Your task to perform on an android device: remove spam from my inbox in the gmail app Image 0: 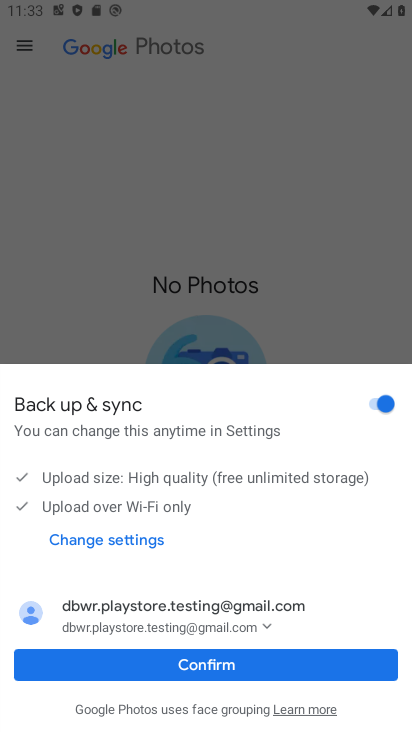
Step 0: press home button
Your task to perform on an android device: remove spam from my inbox in the gmail app Image 1: 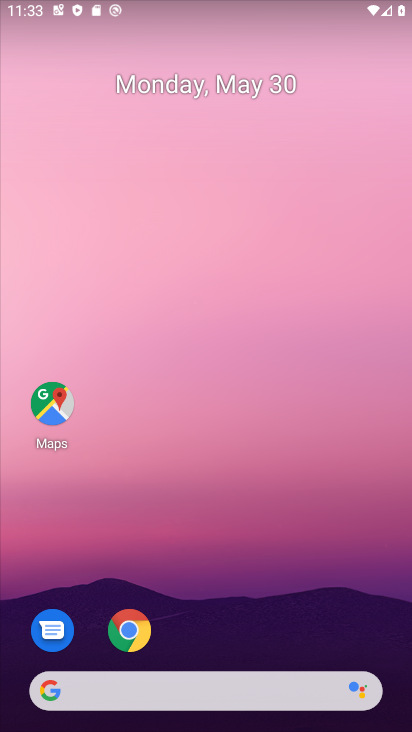
Step 1: drag from (218, 631) to (221, 131)
Your task to perform on an android device: remove spam from my inbox in the gmail app Image 2: 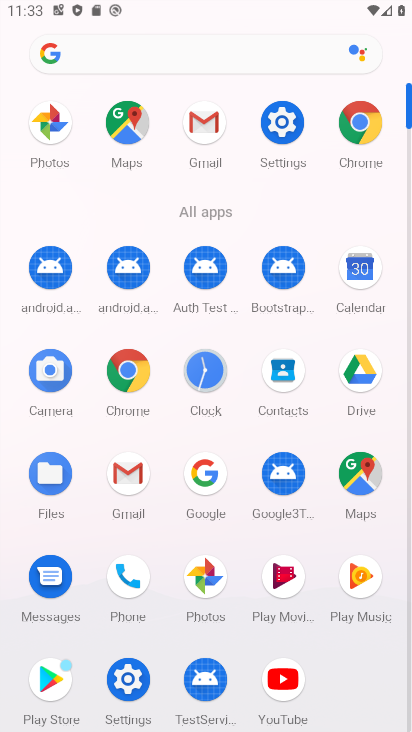
Step 2: click (140, 469)
Your task to perform on an android device: remove spam from my inbox in the gmail app Image 3: 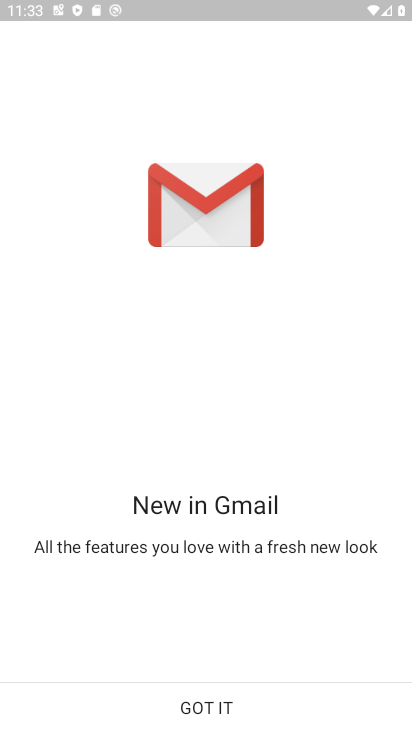
Step 3: click (196, 708)
Your task to perform on an android device: remove spam from my inbox in the gmail app Image 4: 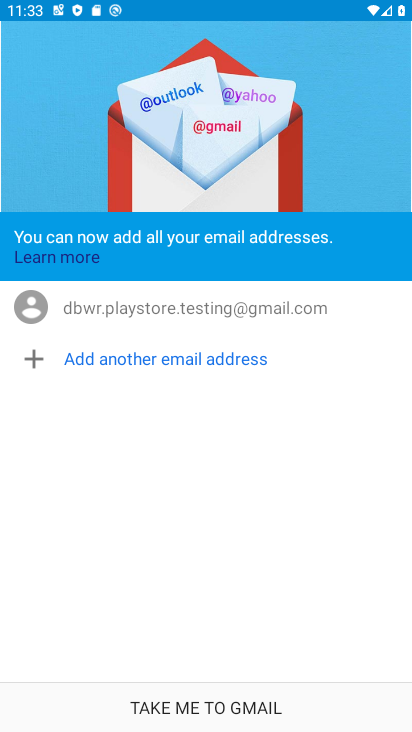
Step 4: click (197, 707)
Your task to perform on an android device: remove spam from my inbox in the gmail app Image 5: 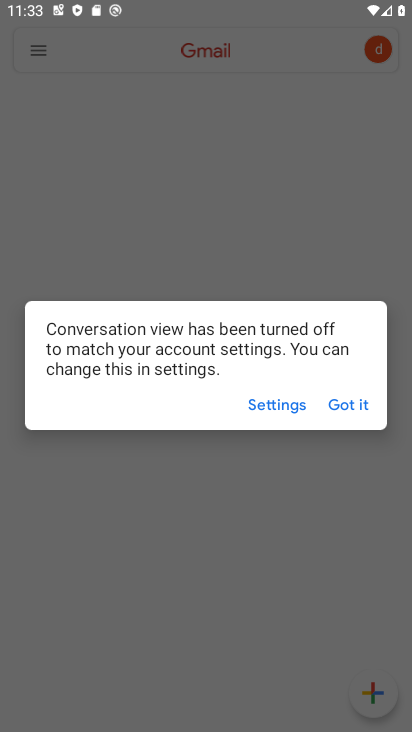
Step 5: click (360, 400)
Your task to perform on an android device: remove spam from my inbox in the gmail app Image 6: 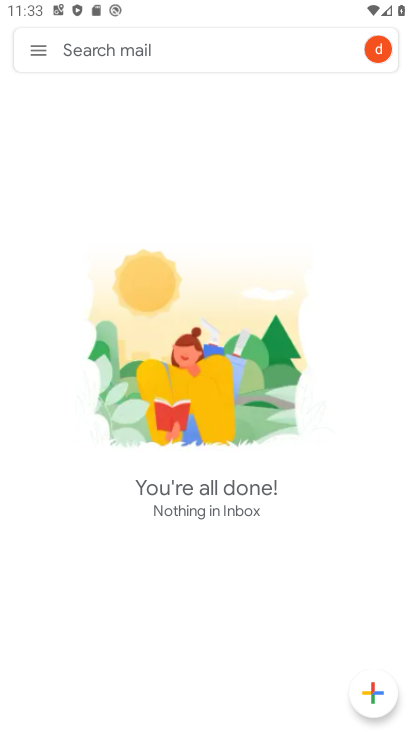
Step 6: click (37, 55)
Your task to perform on an android device: remove spam from my inbox in the gmail app Image 7: 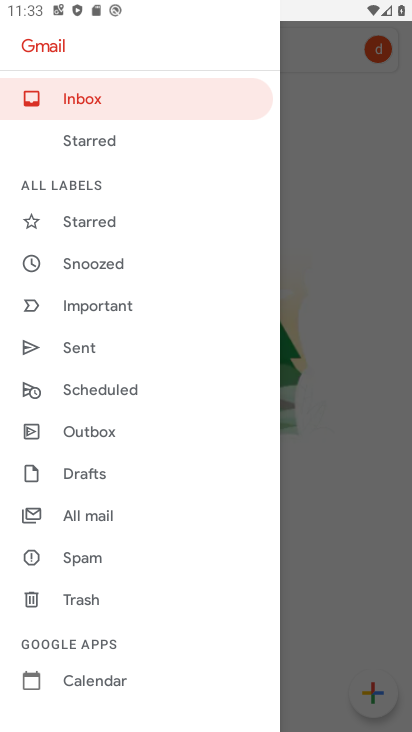
Step 7: click (90, 552)
Your task to perform on an android device: remove spam from my inbox in the gmail app Image 8: 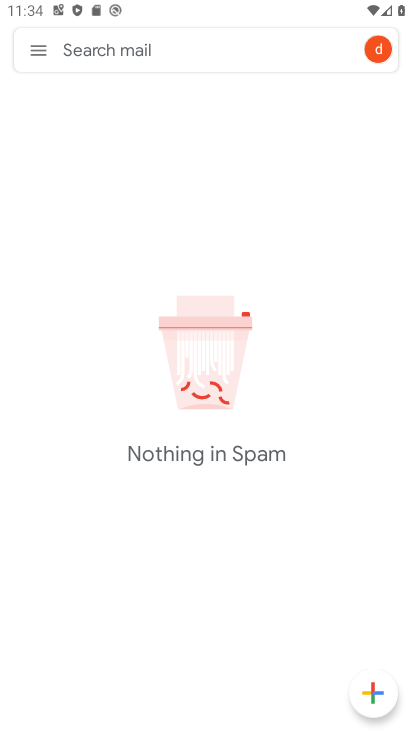
Step 8: task complete